Your task to perform on an android device: Search for vegetarian restaurants on Maps Image 0: 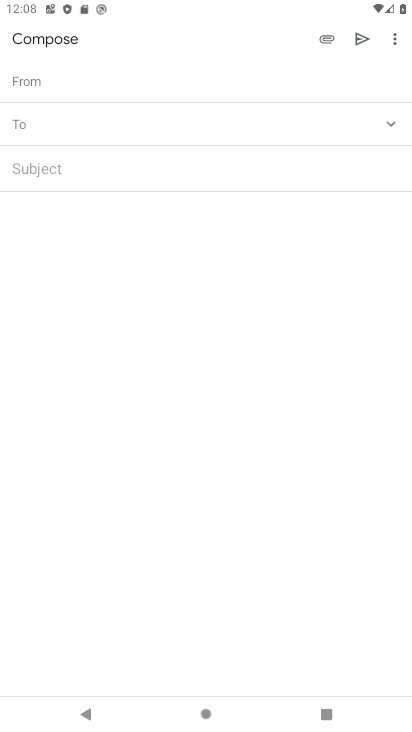
Step 0: drag from (222, 616) to (277, 260)
Your task to perform on an android device: Search for vegetarian restaurants on Maps Image 1: 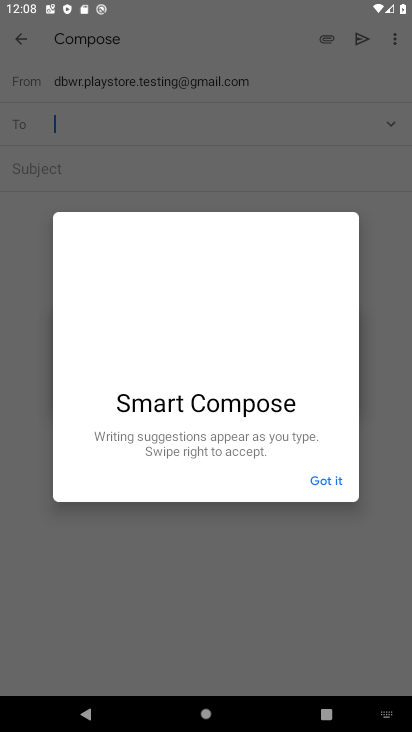
Step 1: press home button
Your task to perform on an android device: Search for vegetarian restaurants on Maps Image 2: 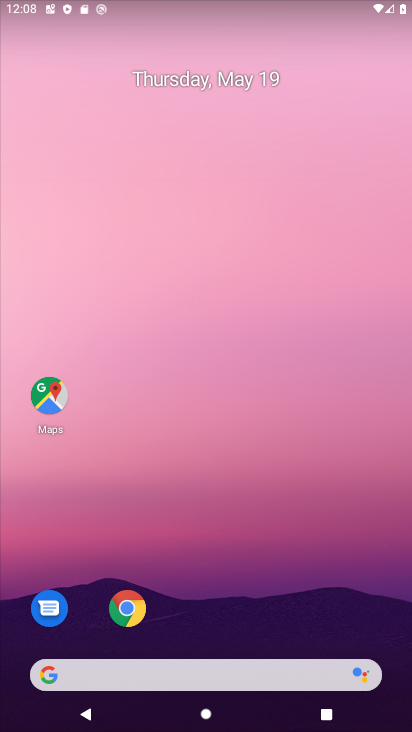
Step 2: drag from (255, 556) to (252, 260)
Your task to perform on an android device: Search for vegetarian restaurants on Maps Image 3: 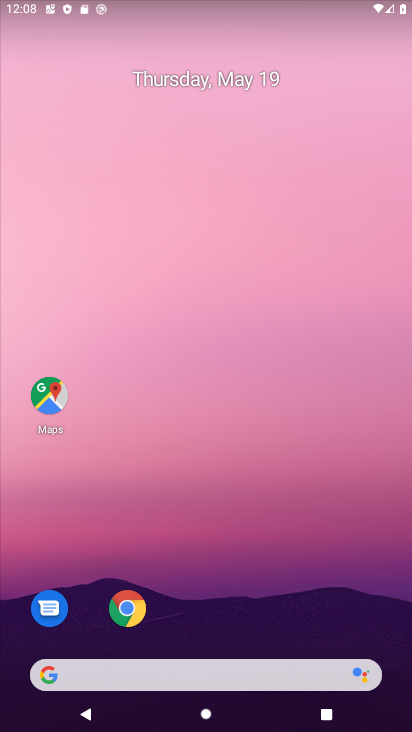
Step 3: click (44, 394)
Your task to perform on an android device: Search for vegetarian restaurants on Maps Image 4: 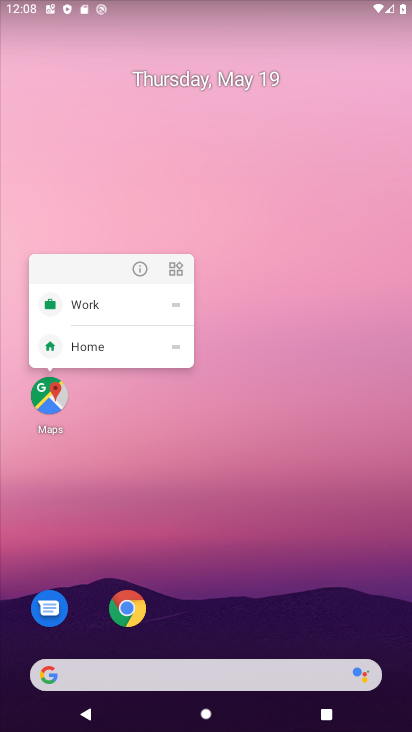
Step 4: click (44, 385)
Your task to perform on an android device: Search for vegetarian restaurants on Maps Image 5: 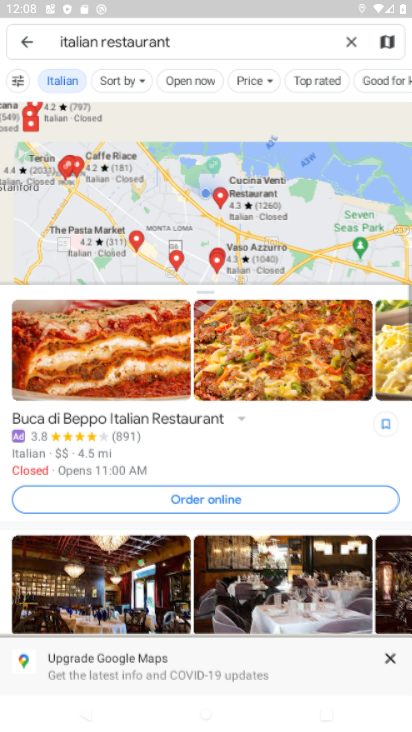
Step 5: click (357, 33)
Your task to perform on an android device: Search for vegetarian restaurants on Maps Image 6: 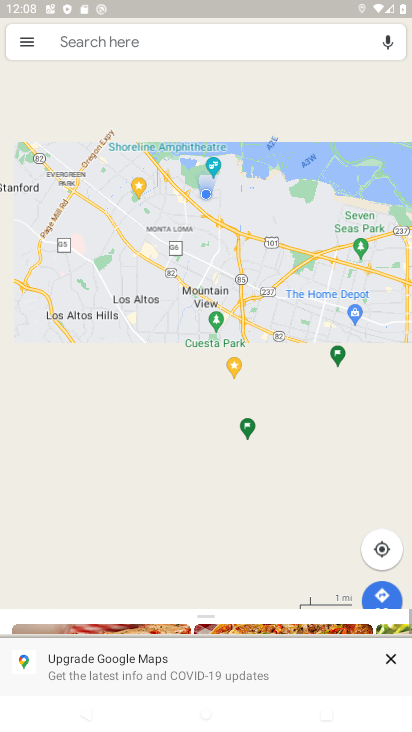
Step 6: click (352, 37)
Your task to perform on an android device: Search for vegetarian restaurants on Maps Image 7: 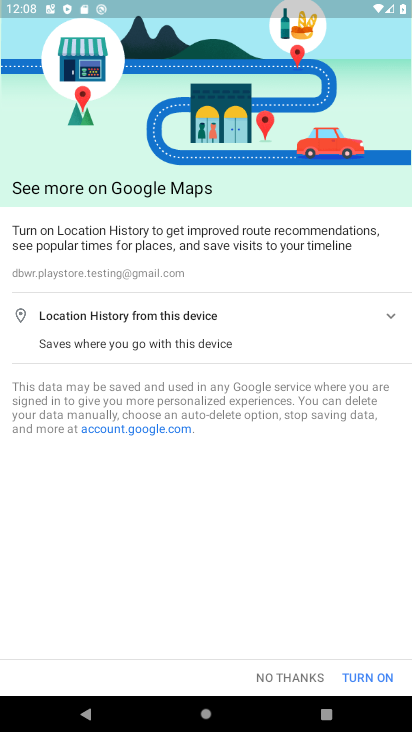
Step 7: click (293, 669)
Your task to perform on an android device: Search for vegetarian restaurants on Maps Image 8: 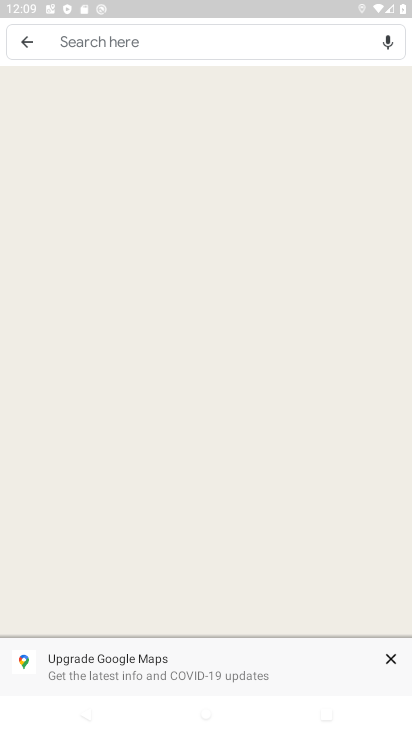
Step 8: click (221, 30)
Your task to perform on an android device: Search for vegetarian restaurants on Maps Image 9: 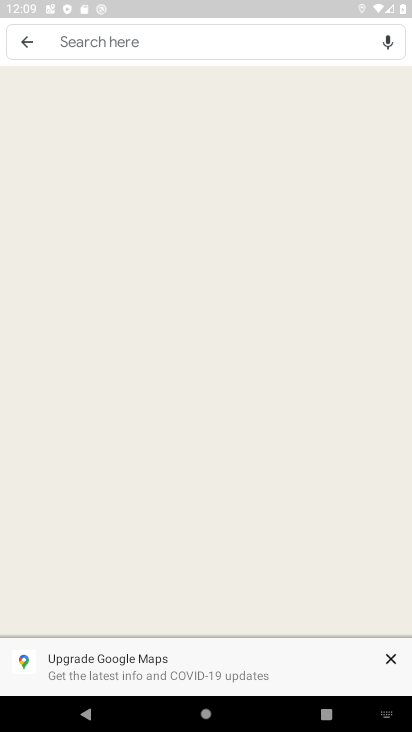
Step 9: type "vegetarian restaurants "
Your task to perform on an android device: Search for vegetarian restaurants on Maps Image 10: 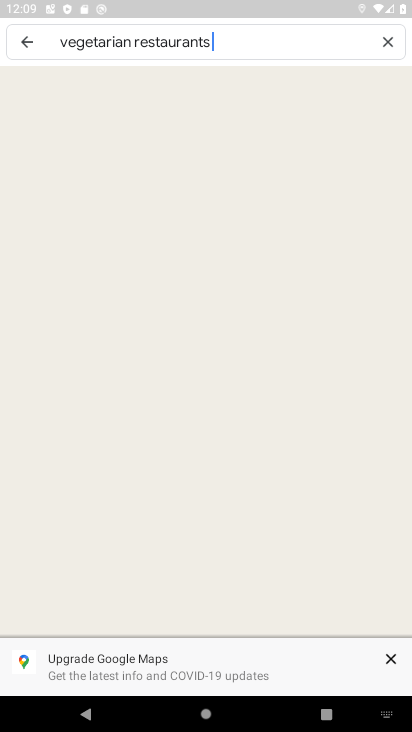
Step 10: click (391, 653)
Your task to perform on an android device: Search for vegetarian restaurants on Maps Image 11: 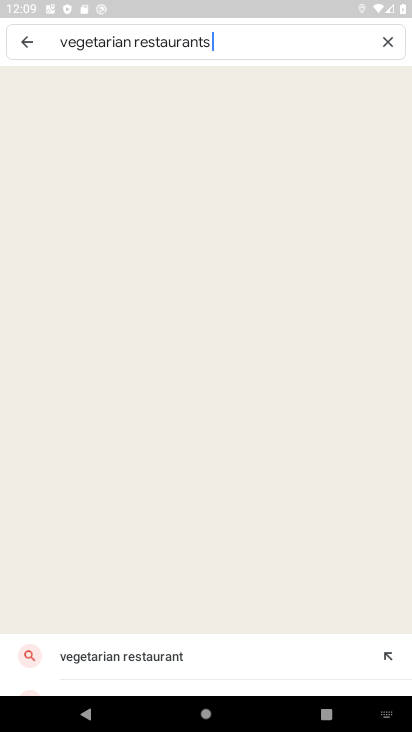
Step 11: click (228, 37)
Your task to perform on an android device: Search for vegetarian restaurants on Maps Image 12: 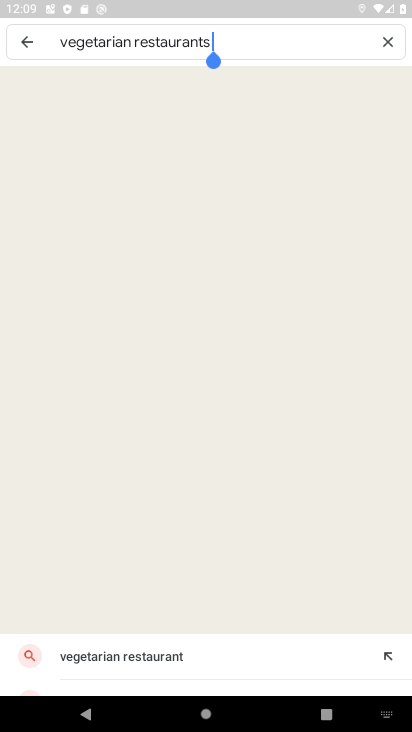
Step 12: click (244, 656)
Your task to perform on an android device: Search for vegetarian restaurants on Maps Image 13: 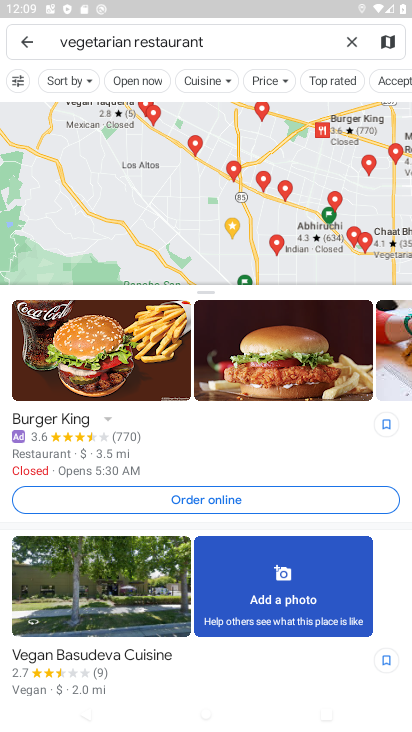
Step 13: task complete